Your task to perform on an android device: Do I have any events today? Image 0: 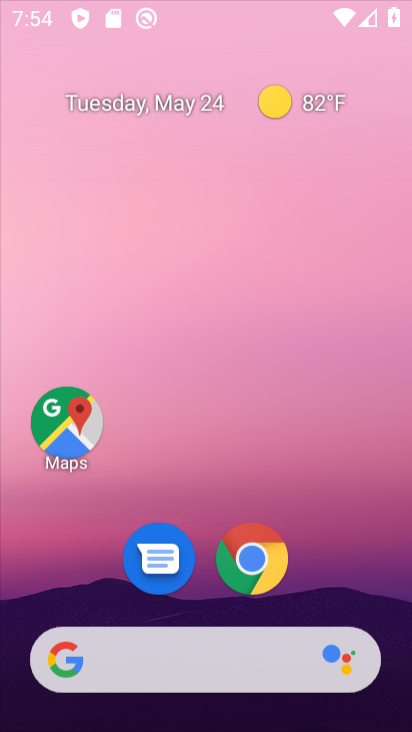
Step 0: drag from (373, 406) to (374, 163)
Your task to perform on an android device: Do I have any events today? Image 1: 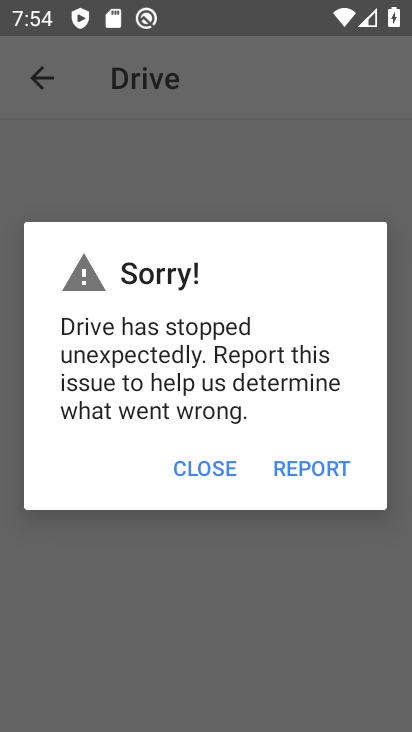
Step 1: press home button
Your task to perform on an android device: Do I have any events today? Image 2: 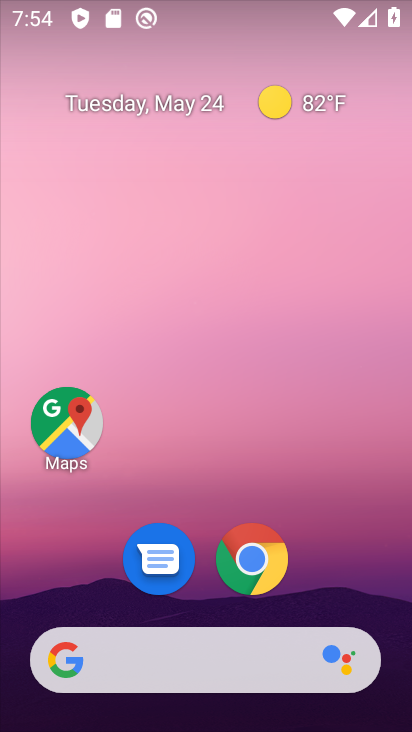
Step 2: drag from (345, 580) to (376, 244)
Your task to perform on an android device: Do I have any events today? Image 3: 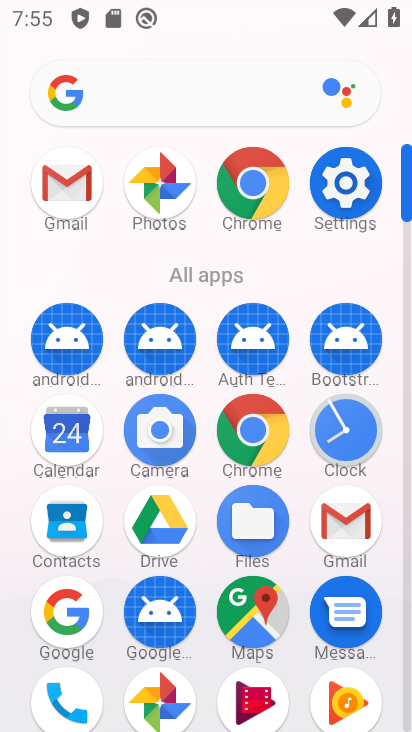
Step 3: click (77, 448)
Your task to perform on an android device: Do I have any events today? Image 4: 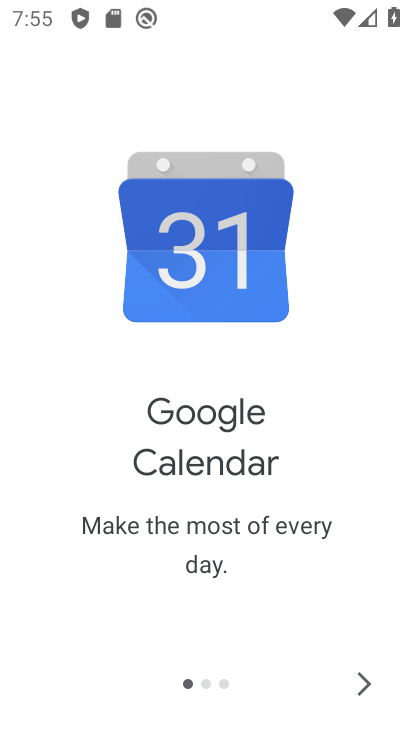
Step 4: click (358, 690)
Your task to perform on an android device: Do I have any events today? Image 5: 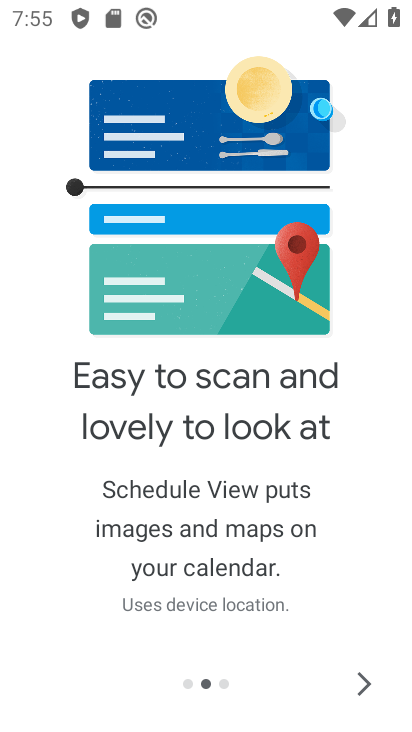
Step 5: click (358, 690)
Your task to perform on an android device: Do I have any events today? Image 6: 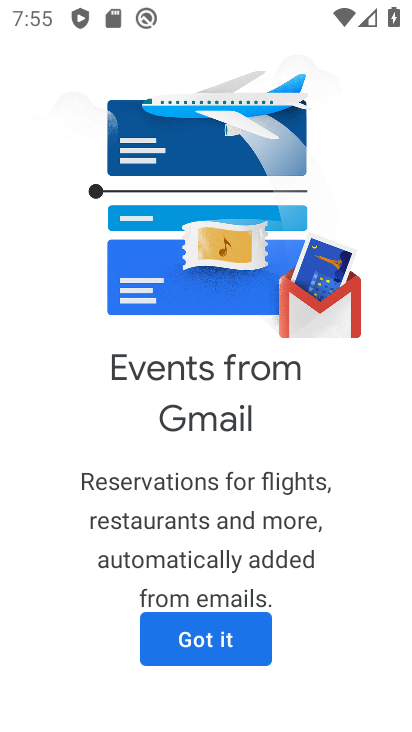
Step 6: click (243, 649)
Your task to perform on an android device: Do I have any events today? Image 7: 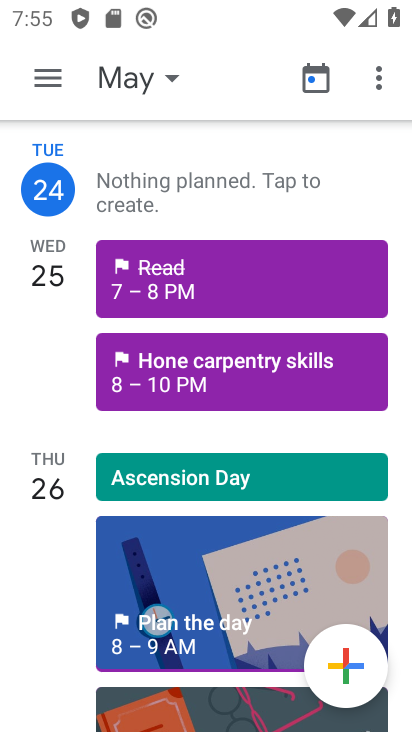
Step 7: click (249, 271)
Your task to perform on an android device: Do I have any events today? Image 8: 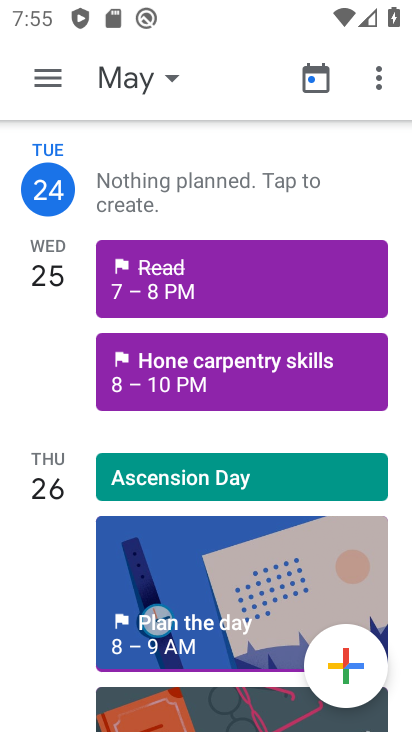
Step 8: click (249, 271)
Your task to perform on an android device: Do I have any events today? Image 9: 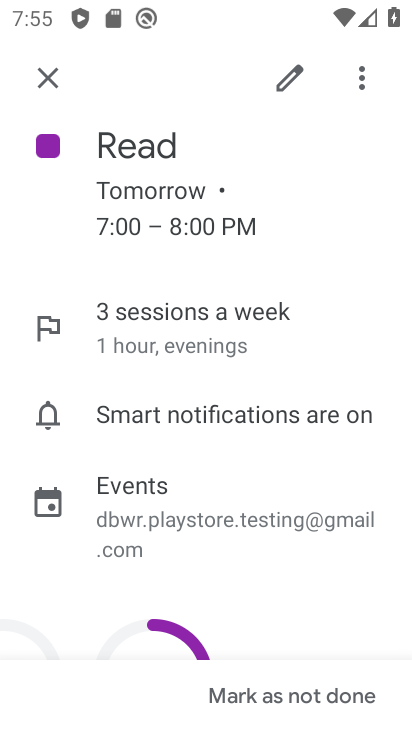
Step 9: task complete